Your task to perform on an android device: toggle sleep mode Image 0: 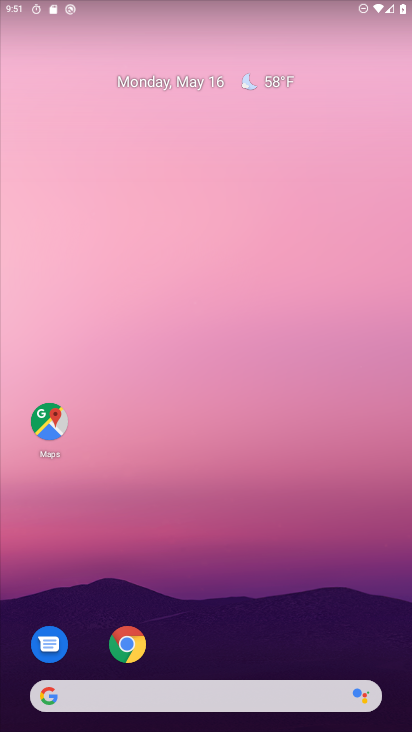
Step 0: drag from (188, 690) to (155, 32)
Your task to perform on an android device: toggle sleep mode Image 1: 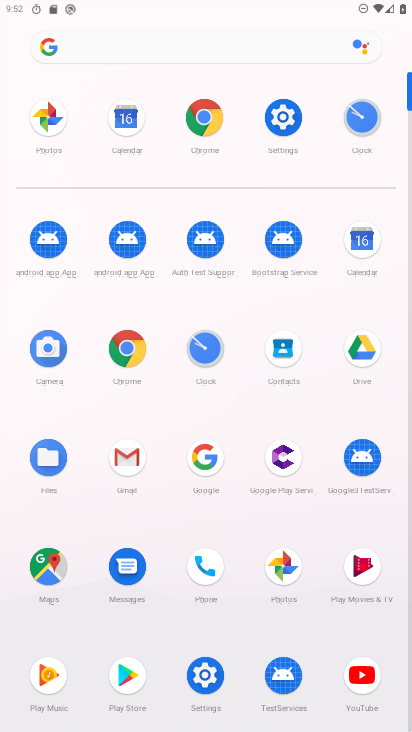
Step 1: click (202, 678)
Your task to perform on an android device: toggle sleep mode Image 2: 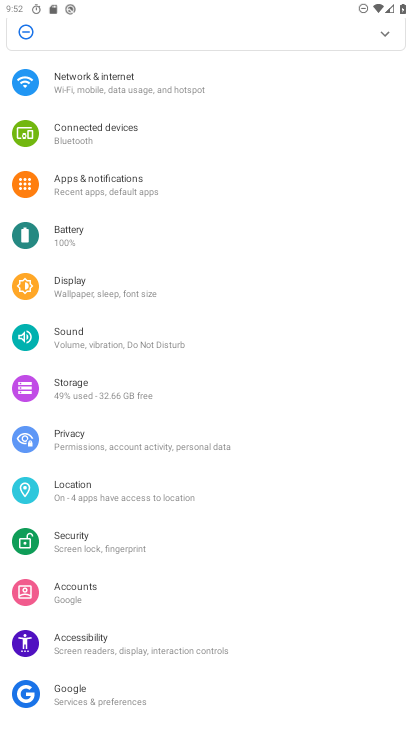
Step 2: click (79, 301)
Your task to perform on an android device: toggle sleep mode Image 3: 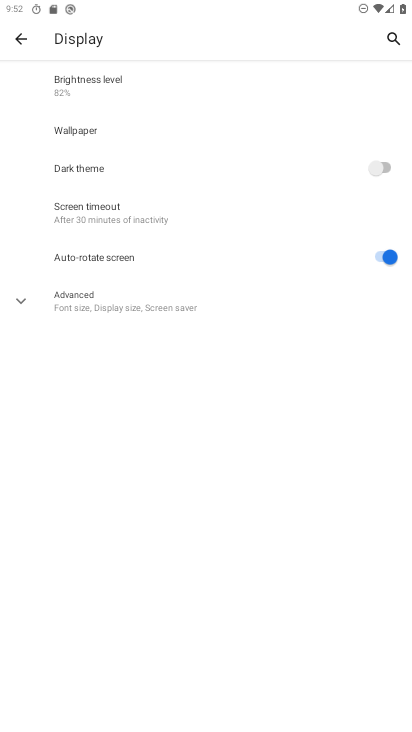
Step 3: click (79, 301)
Your task to perform on an android device: toggle sleep mode Image 4: 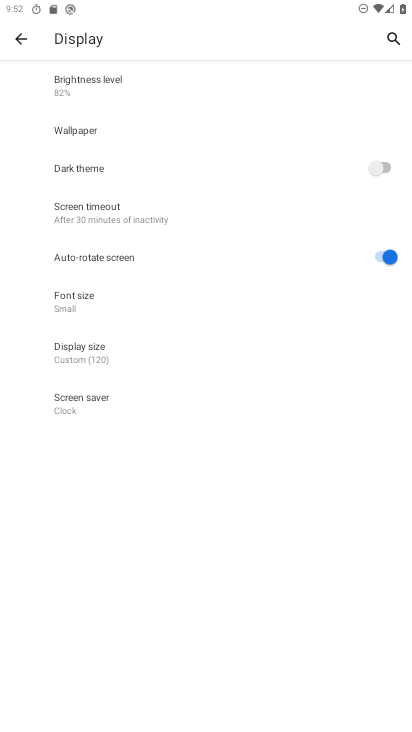
Step 4: task complete